Your task to perform on an android device: Turn on the flashlight Image 0: 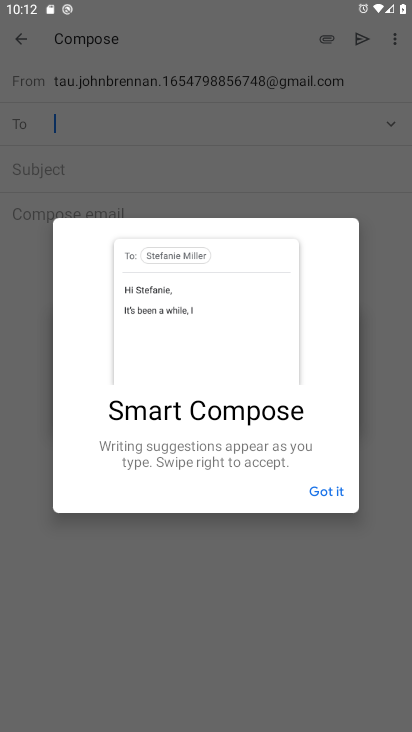
Step 0: press home button
Your task to perform on an android device: Turn on the flashlight Image 1: 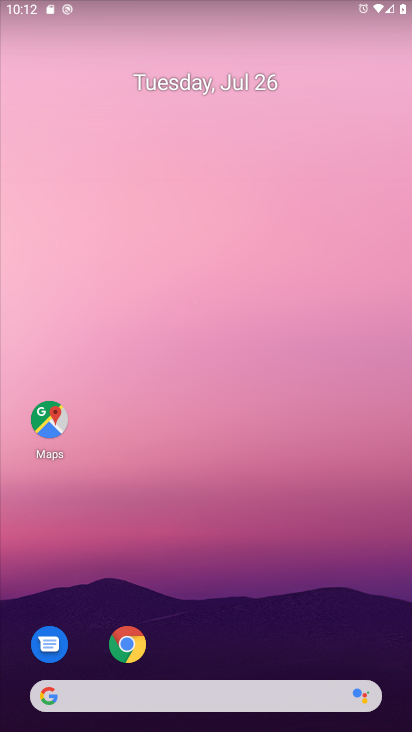
Step 1: drag from (207, 659) to (184, 0)
Your task to perform on an android device: Turn on the flashlight Image 2: 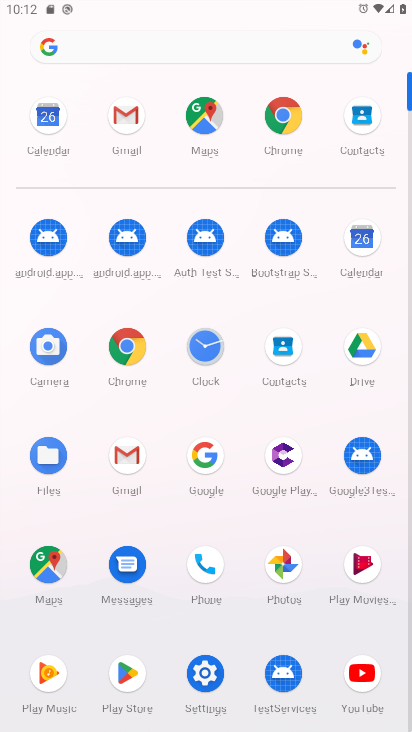
Step 2: click (213, 686)
Your task to perform on an android device: Turn on the flashlight Image 3: 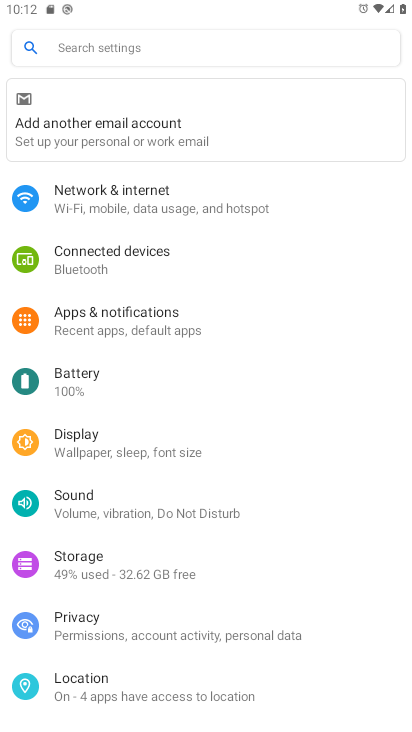
Step 3: click (153, 43)
Your task to perform on an android device: Turn on the flashlight Image 4: 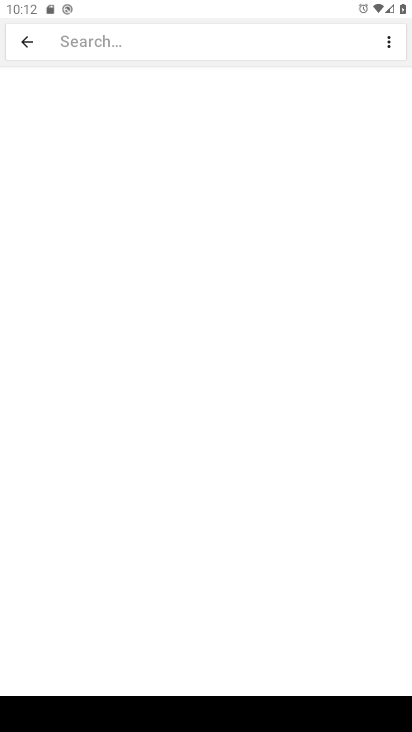
Step 4: type "flashlight"
Your task to perform on an android device: Turn on the flashlight Image 5: 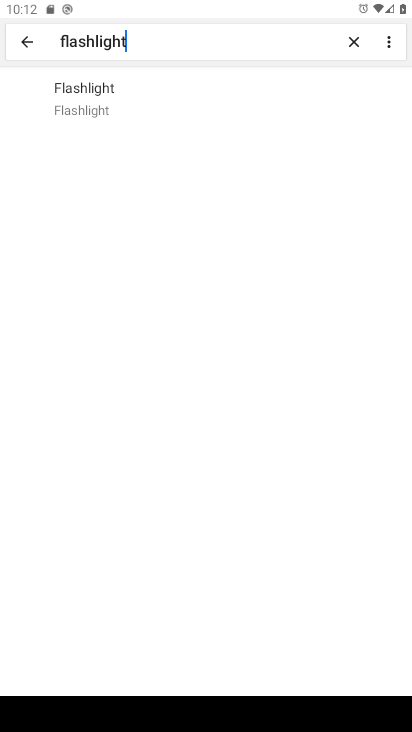
Step 5: click (93, 78)
Your task to perform on an android device: Turn on the flashlight Image 6: 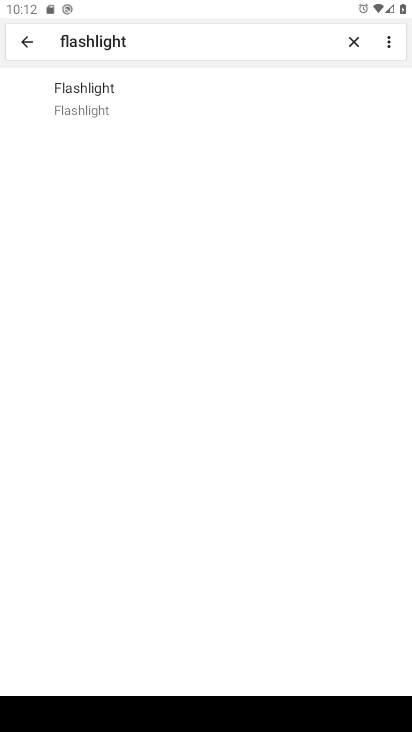
Step 6: task complete